Your task to perform on an android device: Go to Google Image 0: 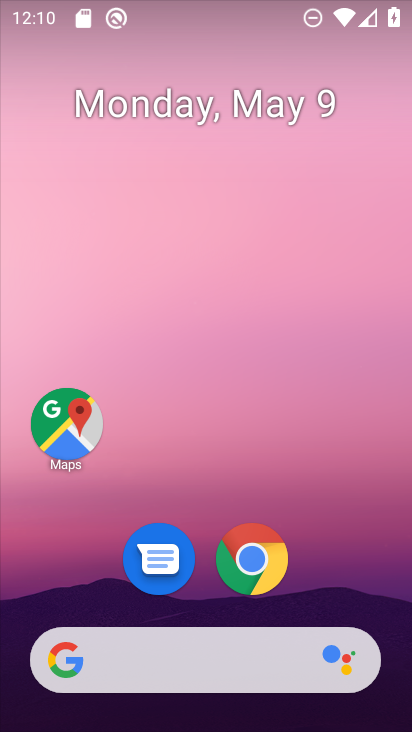
Step 0: drag from (353, 562) to (276, 115)
Your task to perform on an android device: Go to Google Image 1: 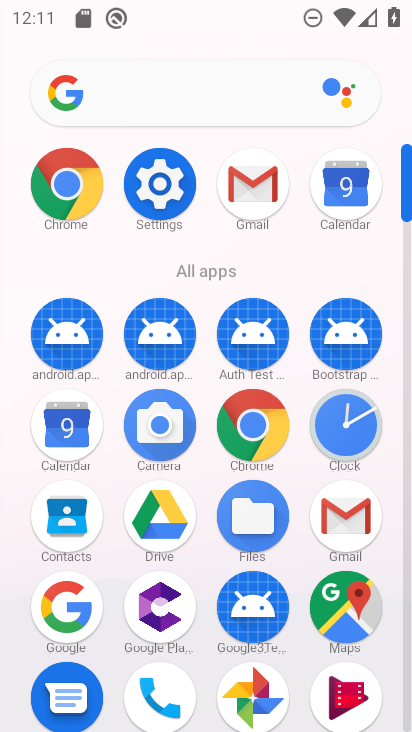
Step 1: click (45, 601)
Your task to perform on an android device: Go to Google Image 2: 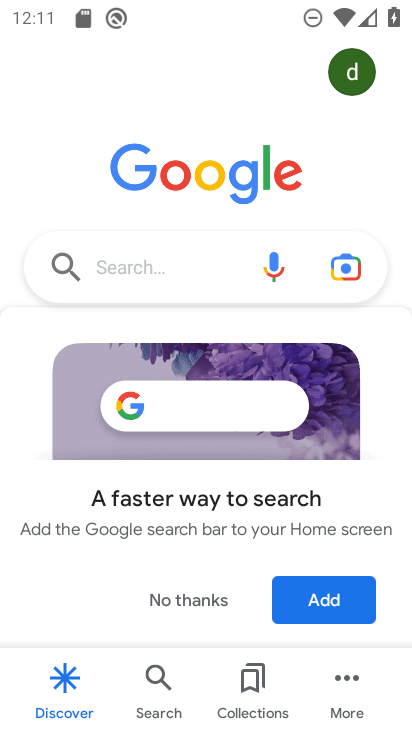
Step 2: task complete